Your task to perform on an android device: Go to wifi settings Image 0: 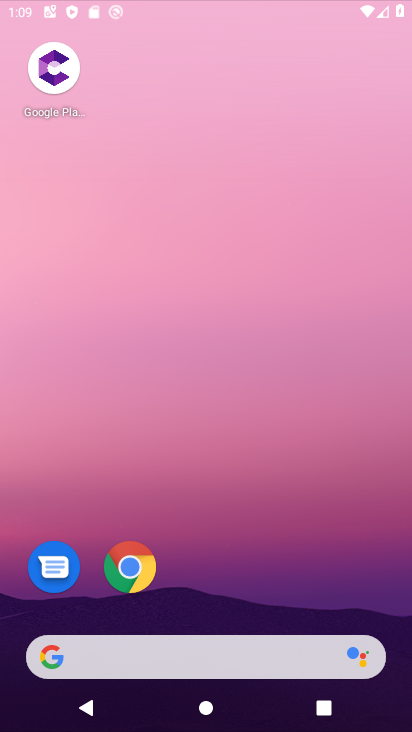
Step 0: drag from (239, 574) to (207, 61)
Your task to perform on an android device: Go to wifi settings Image 1: 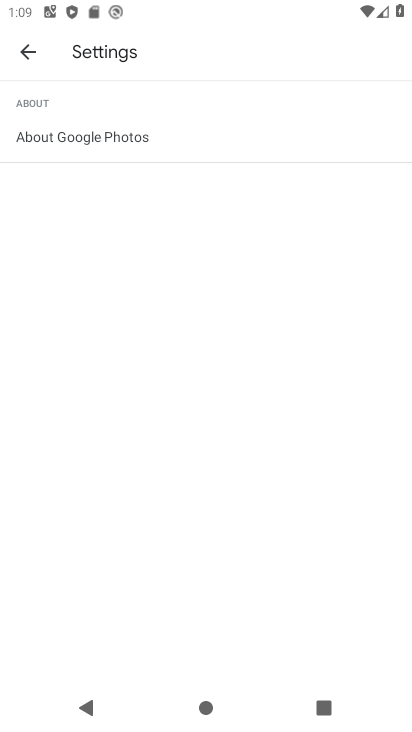
Step 1: press home button
Your task to perform on an android device: Go to wifi settings Image 2: 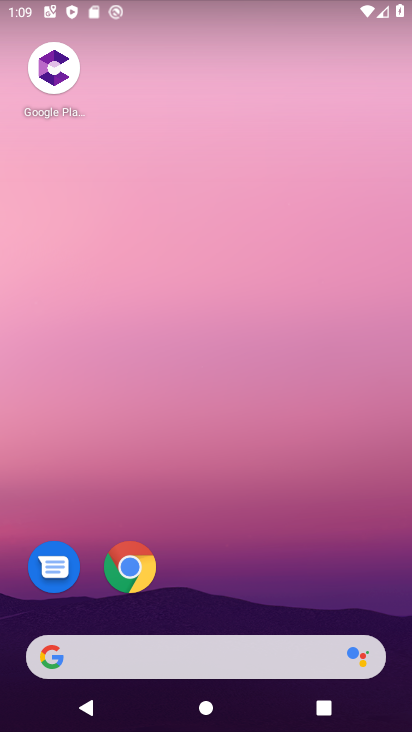
Step 2: drag from (291, 204) to (281, 131)
Your task to perform on an android device: Go to wifi settings Image 3: 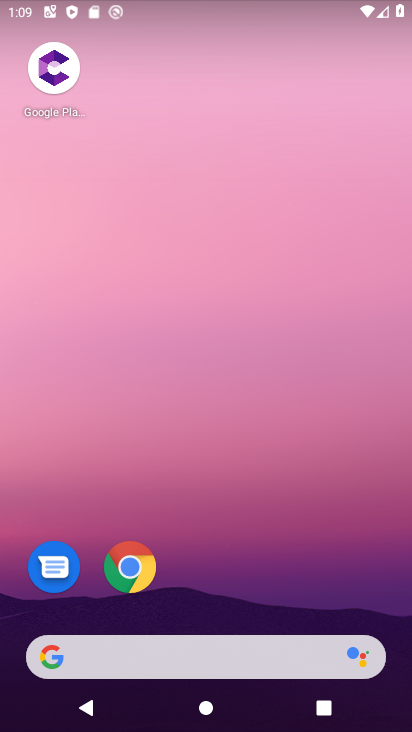
Step 3: drag from (269, 519) to (222, 82)
Your task to perform on an android device: Go to wifi settings Image 4: 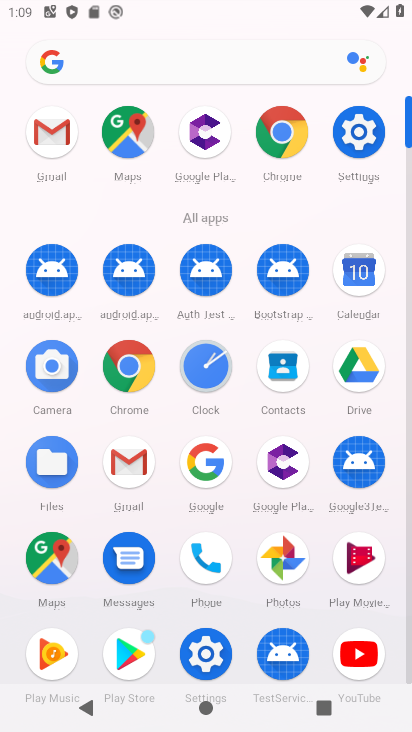
Step 4: click (357, 122)
Your task to perform on an android device: Go to wifi settings Image 5: 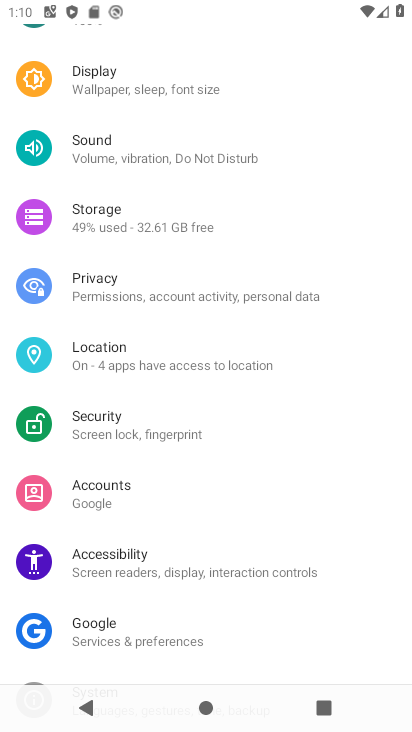
Step 5: drag from (212, 92) to (269, 543)
Your task to perform on an android device: Go to wifi settings Image 6: 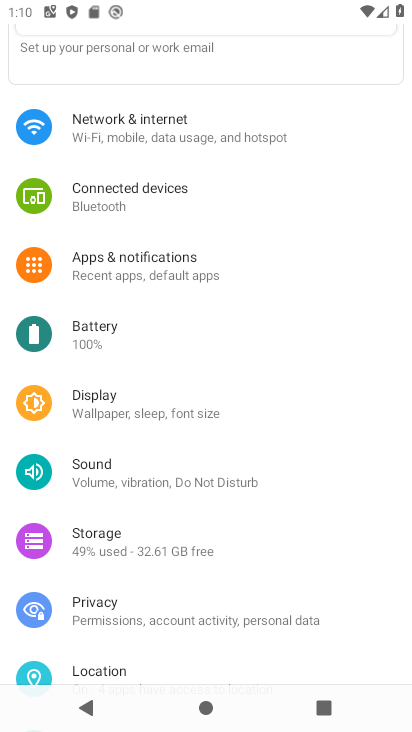
Step 6: drag from (189, 189) to (211, 402)
Your task to perform on an android device: Go to wifi settings Image 7: 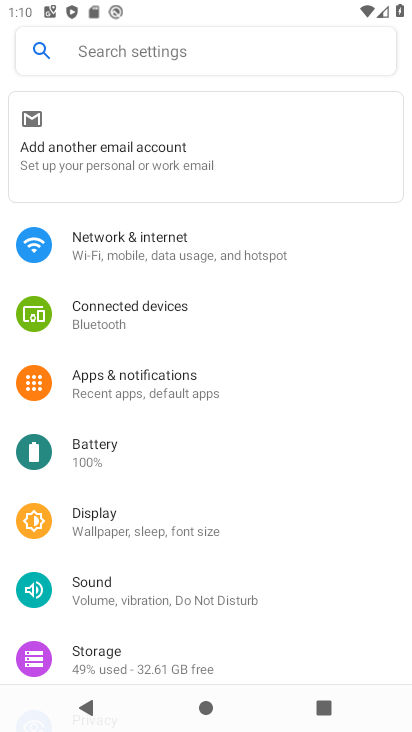
Step 7: click (189, 255)
Your task to perform on an android device: Go to wifi settings Image 8: 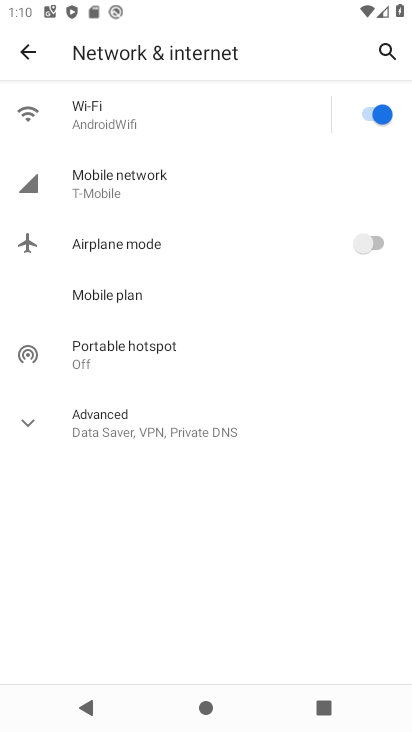
Step 8: click (199, 122)
Your task to perform on an android device: Go to wifi settings Image 9: 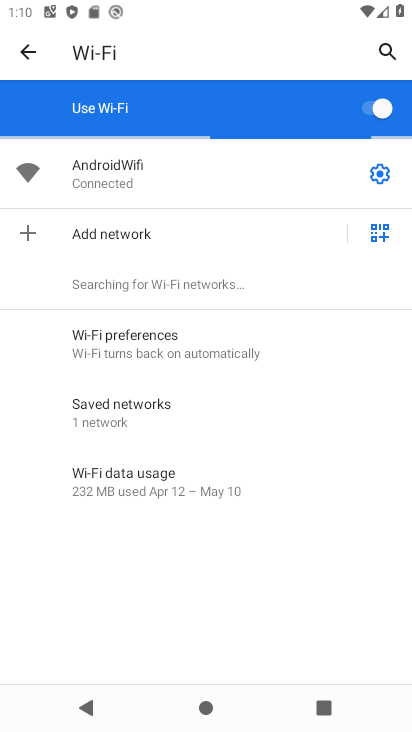
Step 9: task complete